Your task to perform on an android device: Go to Wikipedia Image 0: 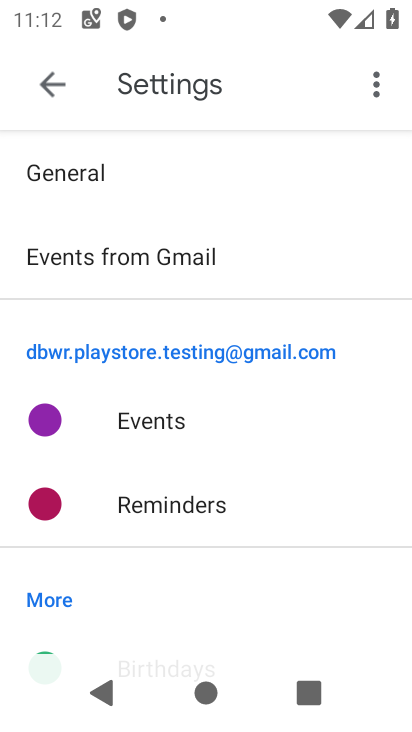
Step 0: press home button
Your task to perform on an android device: Go to Wikipedia Image 1: 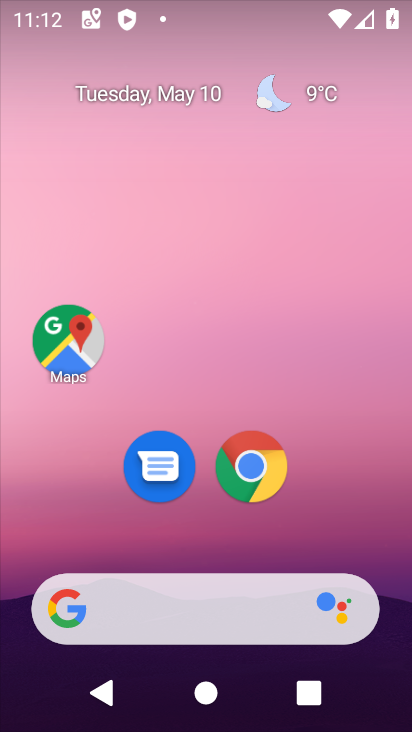
Step 1: click (253, 458)
Your task to perform on an android device: Go to Wikipedia Image 2: 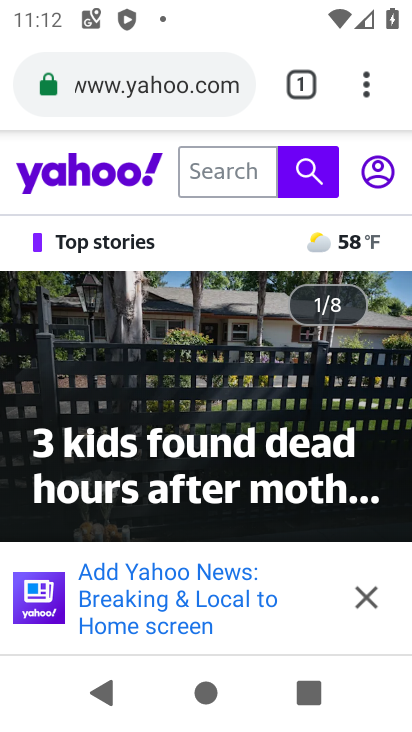
Step 2: click (127, 97)
Your task to perform on an android device: Go to Wikipedia Image 3: 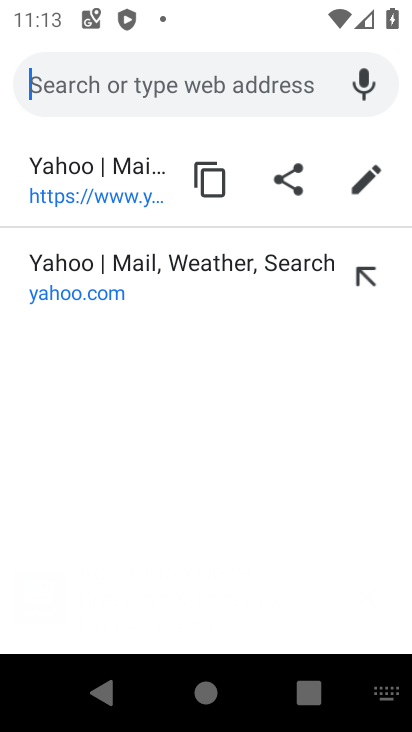
Step 3: type "wikipedia"
Your task to perform on an android device: Go to Wikipedia Image 4: 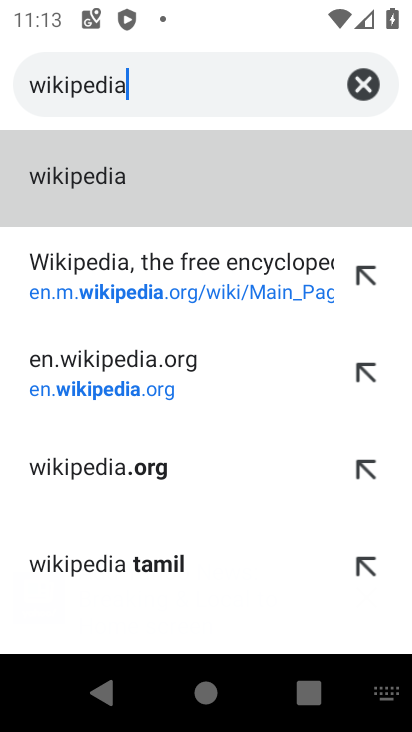
Step 4: click (87, 183)
Your task to perform on an android device: Go to Wikipedia Image 5: 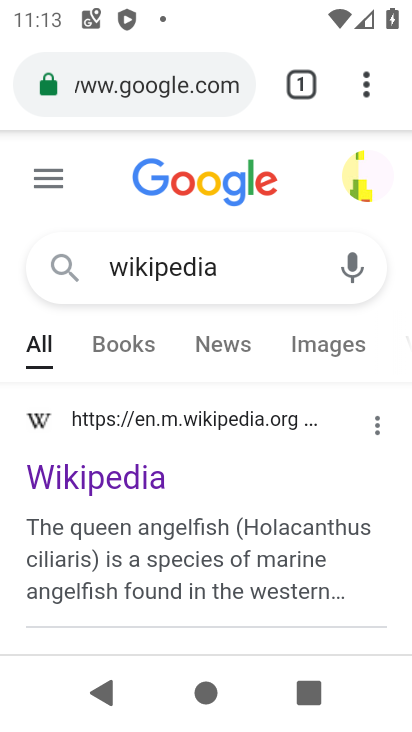
Step 5: click (72, 479)
Your task to perform on an android device: Go to Wikipedia Image 6: 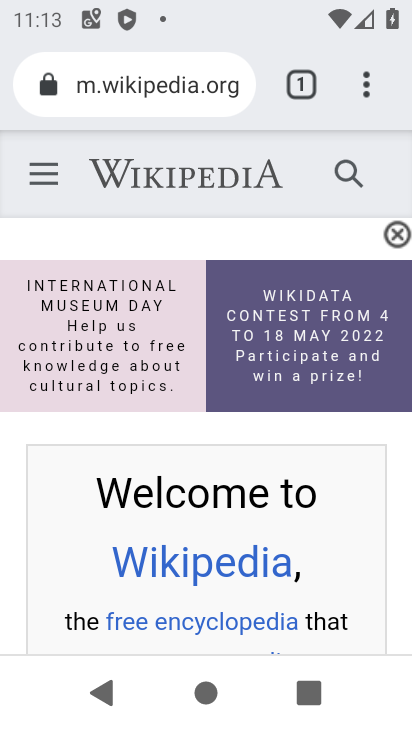
Step 6: task complete